Your task to perform on an android device: Go to Reddit.com Image 0: 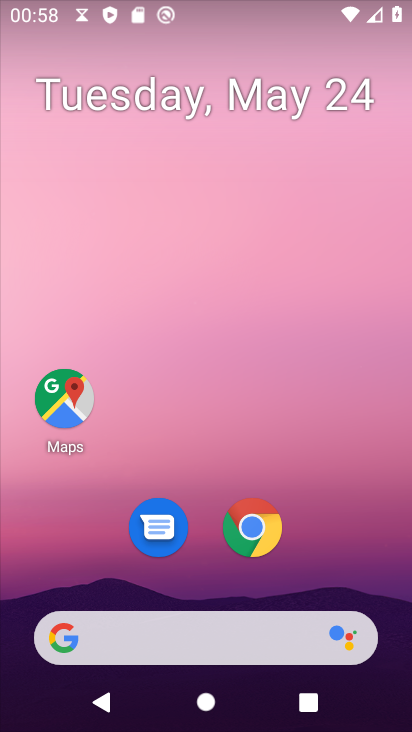
Step 0: press home button
Your task to perform on an android device: Go to Reddit.com Image 1: 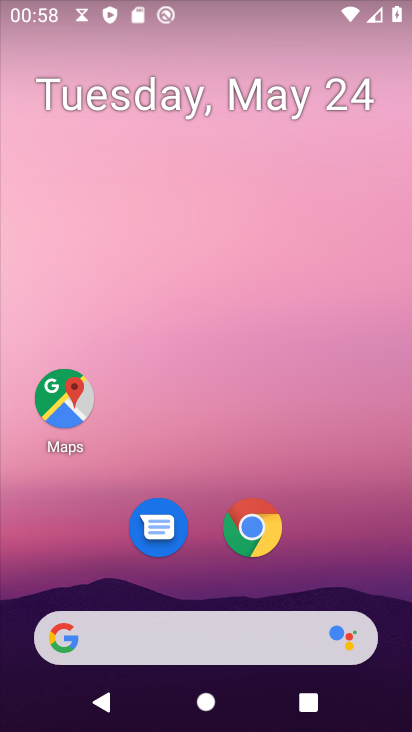
Step 1: click (267, 536)
Your task to perform on an android device: Go to Reddit.com Image 2: 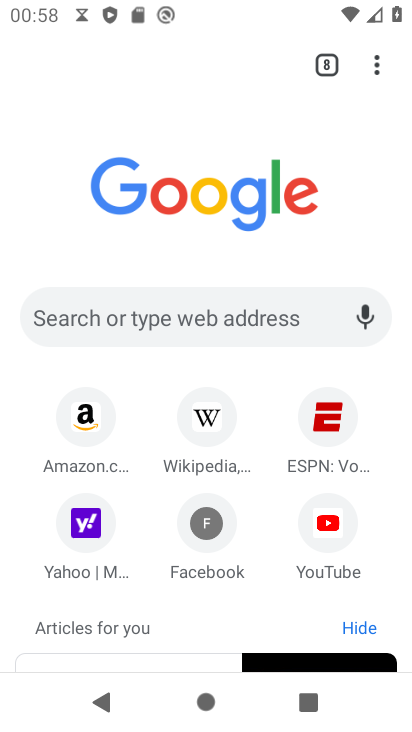
Step 2: click (167, 317)
Your task to perform on an android device: Go to Reddit.com Image 3: 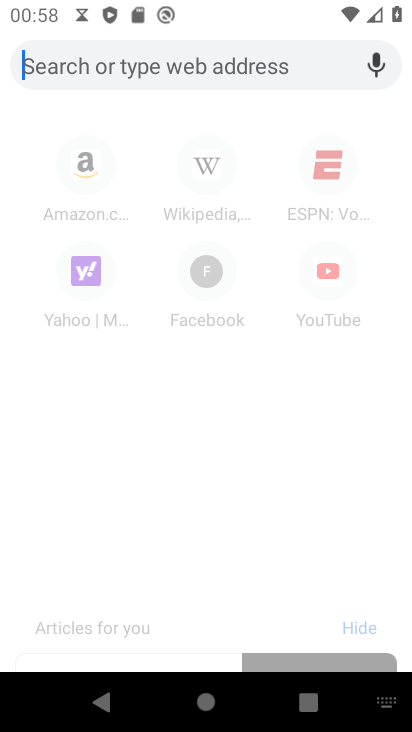
Step 3: type "reddit.com"
Your task to perform on an android device: Go to Reddit.com Image 4: 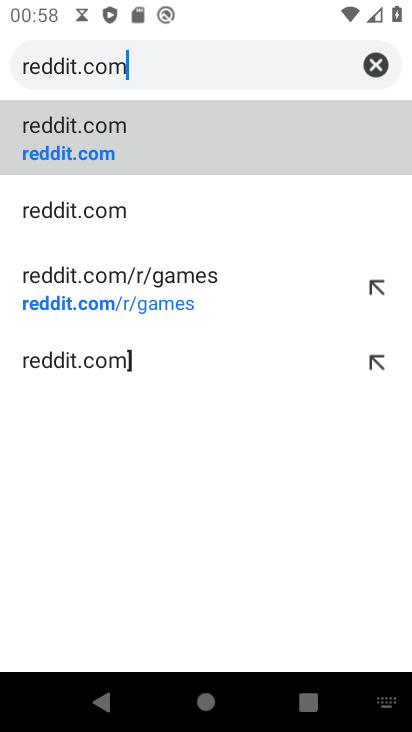
Step 4: click (172, 140)
Your task to perform on an android device: Go to Reddit.com Image 5: 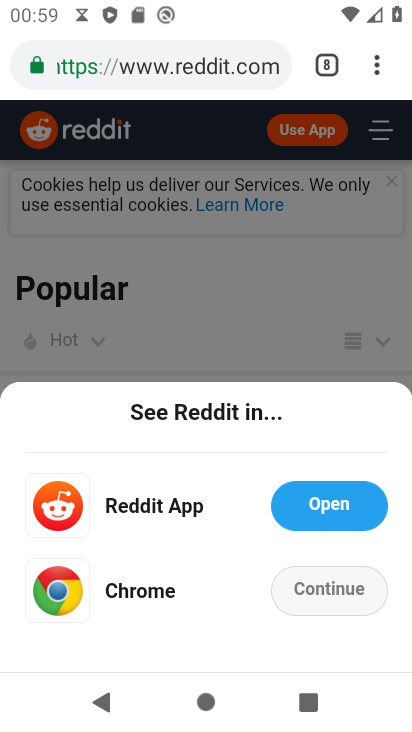
Step 5: task complete